Your task to perform on an android device: Show me the alarms in the clock app Image 0: 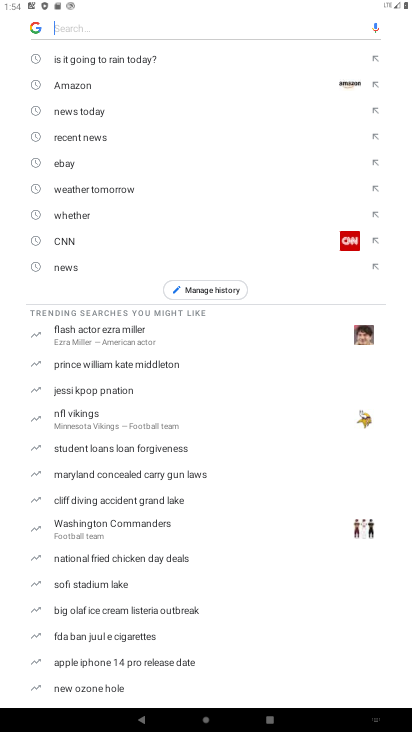
Step 0: press home button
Your task to perform on an android device: Show me the alarms in the clock app Image 1: 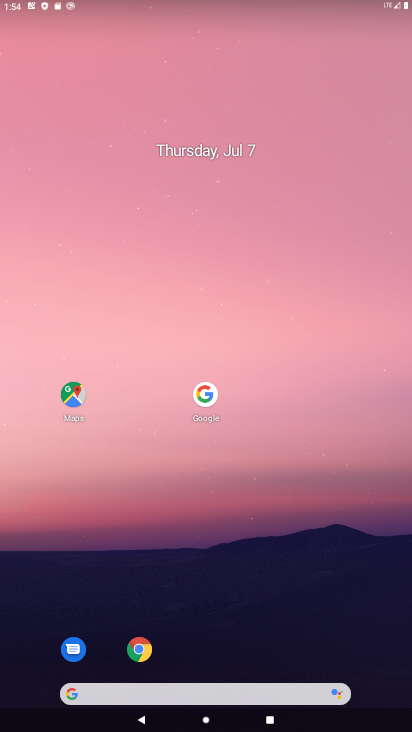
Step 1: drag from (348, 561) to (320, 58)
Your task to perform on an android device: Show me the alarms in the clock app Image 2: 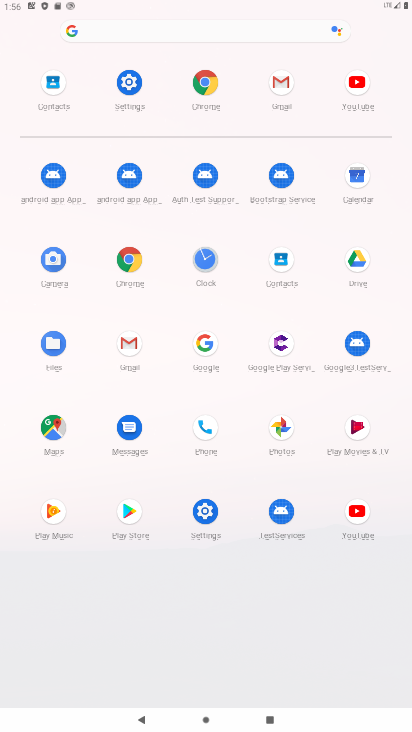
Step 2: click (207, 260)
Your task to perform on an android device: Show me the alarms in the clock app Image 3: 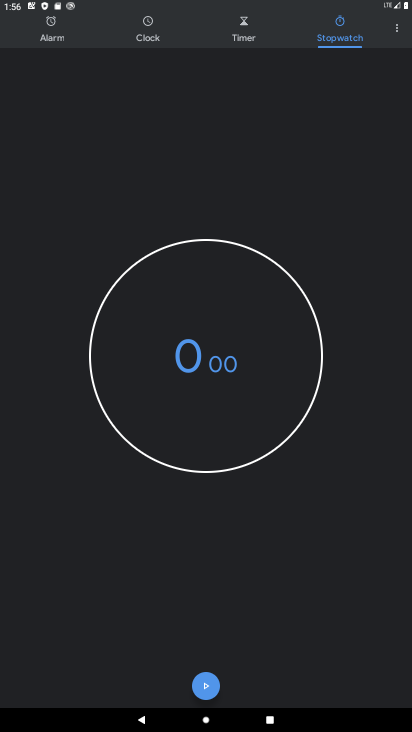
Step 3: press home button
Your task to perform on an android device: Show me the alarms in the clock app Image 4: 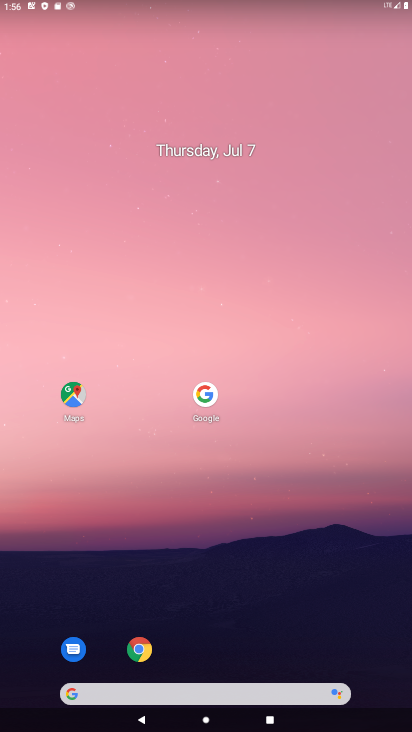
Step 4: drag from (302, 539) to (308, 25)
Your task to perform on an android device: Show me the alarms in the clock app Image 5: 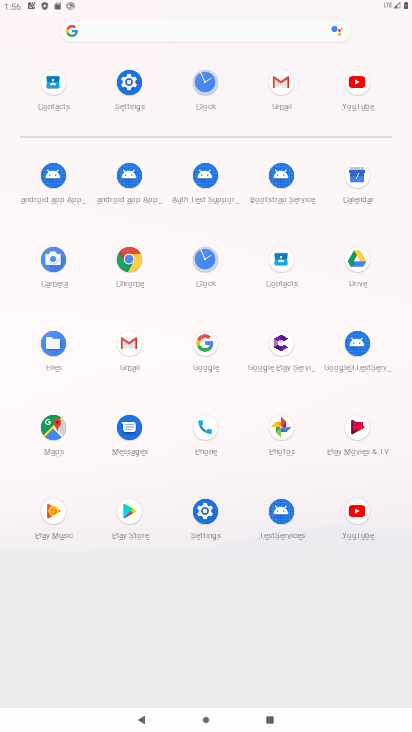
Step 5: press home button
Your task to perform on an android device: Show me the alarms in the clock app Image 6: 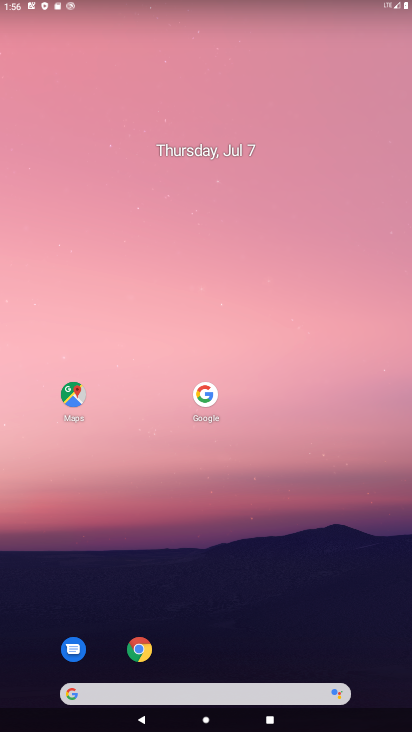
Step 6: drag from (328, 571) to (352, 6)
Your task to perform on an android device: Show me the alarms in the clock app Image 7: 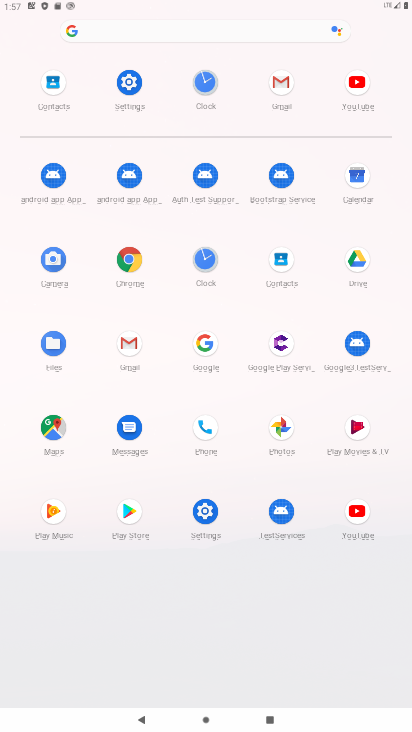
Step 7: click (209, 254)
Your task to perform on an android device: Show me the alarms in the clock app Image 8: 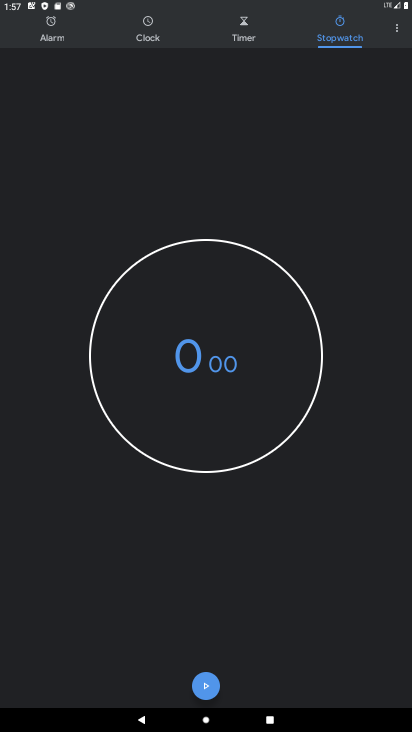
Step 8: click (142, 30)
Your task to perform on an android device: Show me the alarms in the clock app Image 9: 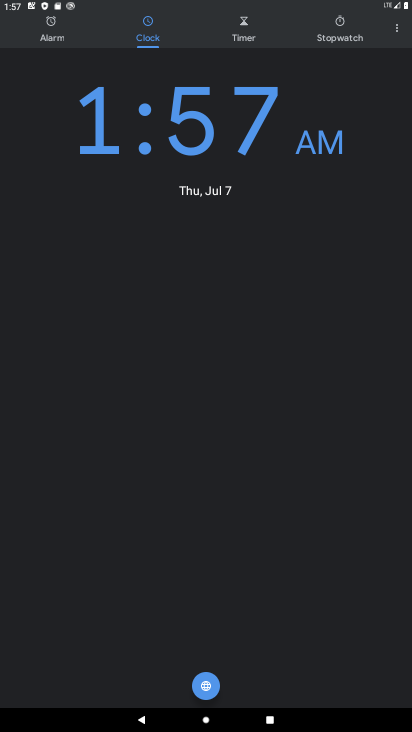
Step 9: task complete